Your task to perform on an android device: see sites visited before in the chrome app Image 0: 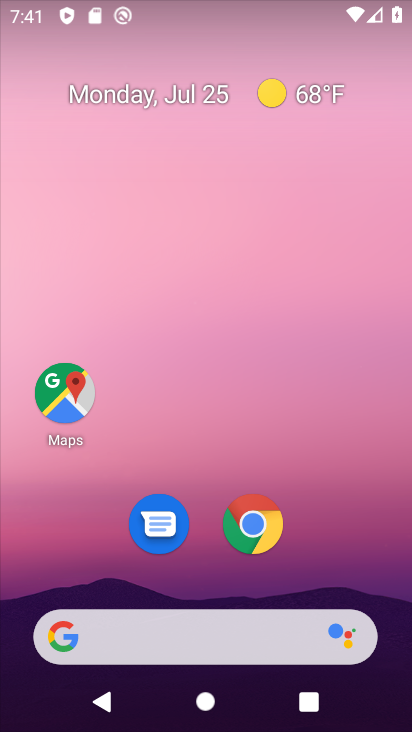
Step 0: click (256, 524)
Your task to perform on an android device: see sites visited before in the chrome app Image 1: 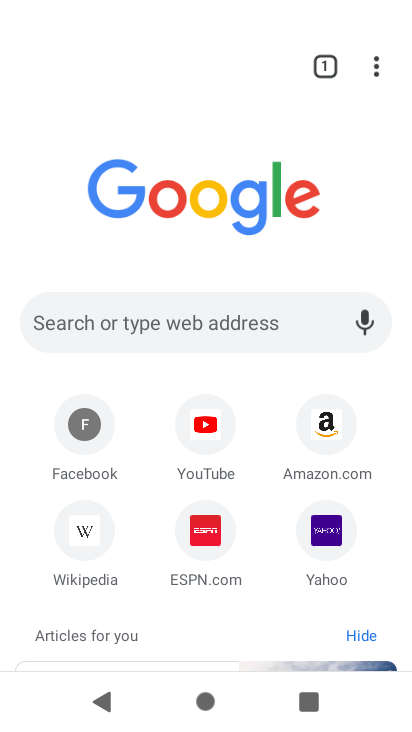
Step 1: click (377, 74)
Your task to perform on an android device: see sites visited before in the chrome app Image 2: 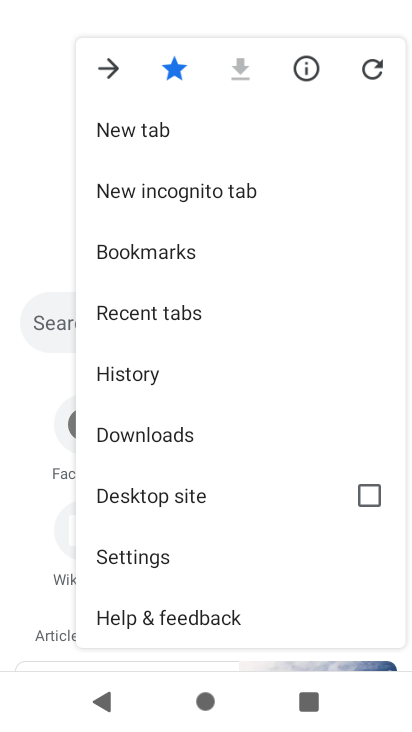
Step 2: click (188, 306)
Your task to perform on an android device: see sites visited before in the chrome app Image 3: 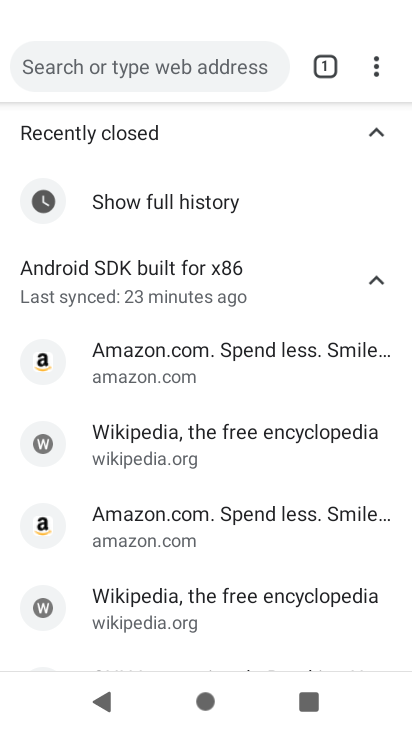
Step 3: task complete